Your task to perform on an android device: Play the last video I watched on Youtube Image 0: 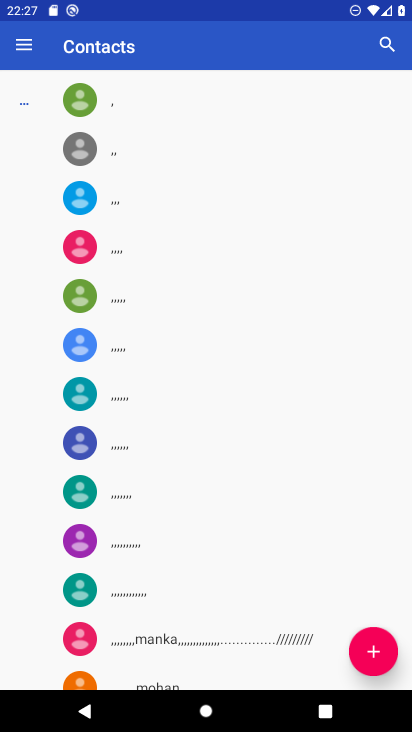
Step 0: press back button
Your task to perform on an android device: Play the last video I watched on Youtube Image 1: 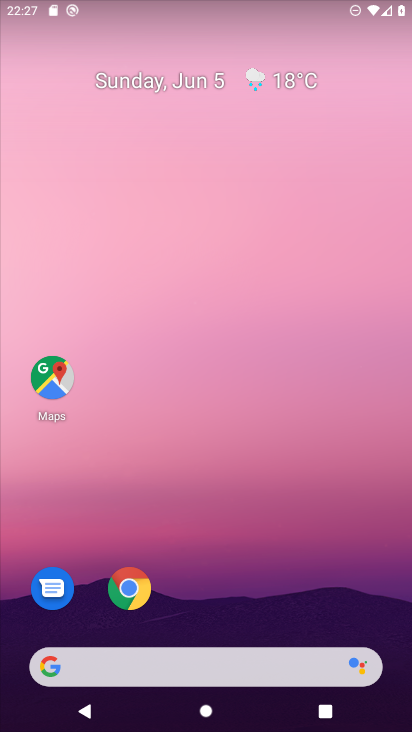
Step 1: drag from (275, 555) to (278, 128)
Your task to perform on an android device: Play the last video I watched on Youtube Image 2: 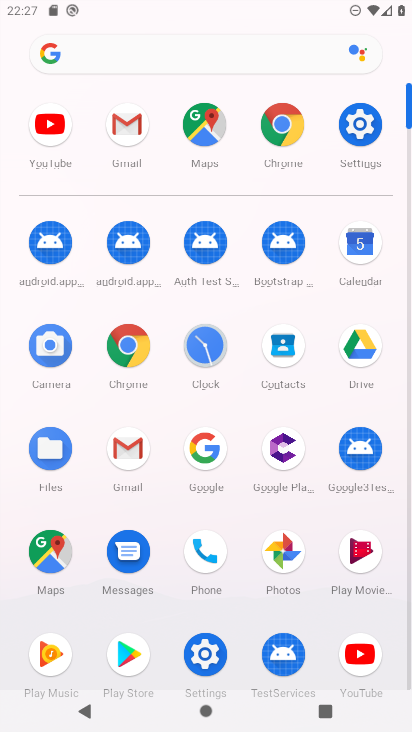
Step 2: click (358, 654)
Your task to perform on an android device: Play the last video I watched on Youtube Image 3: 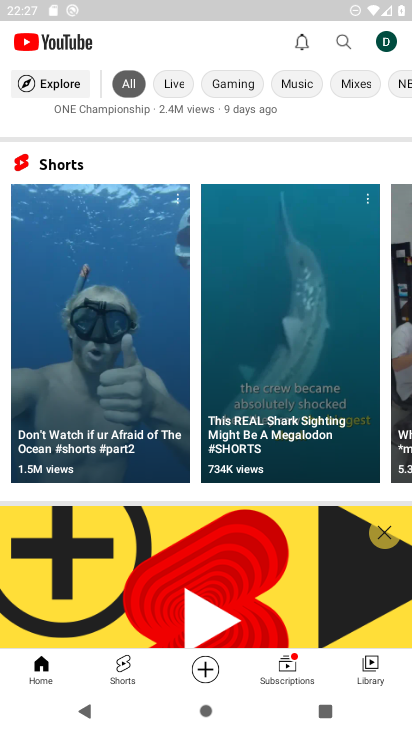
Step 3: click (373, 669)
Your task to perform on an android device: Play the last video I watched on Youtube Image 4: 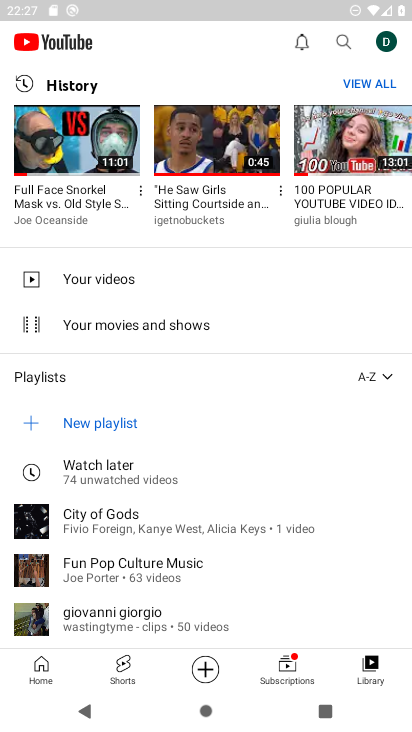
Step 4: click (68, 117)
Your task to perform on an android device: Play the last video I watched on Youtube Image 5: 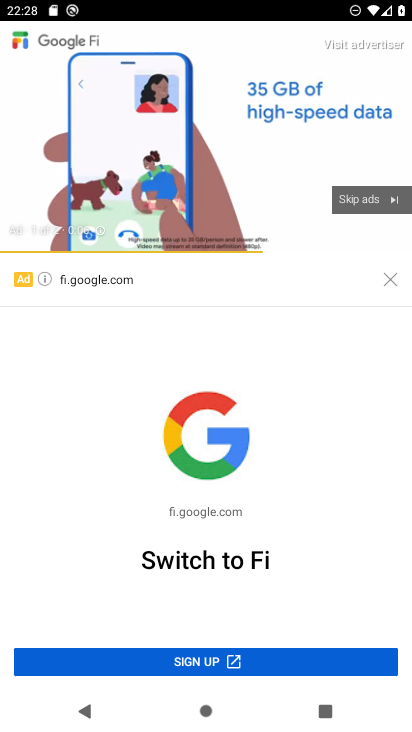
Step 5: task complete